Your task to perform on an android device: Set the phone to "Do not disturb". Image 0: 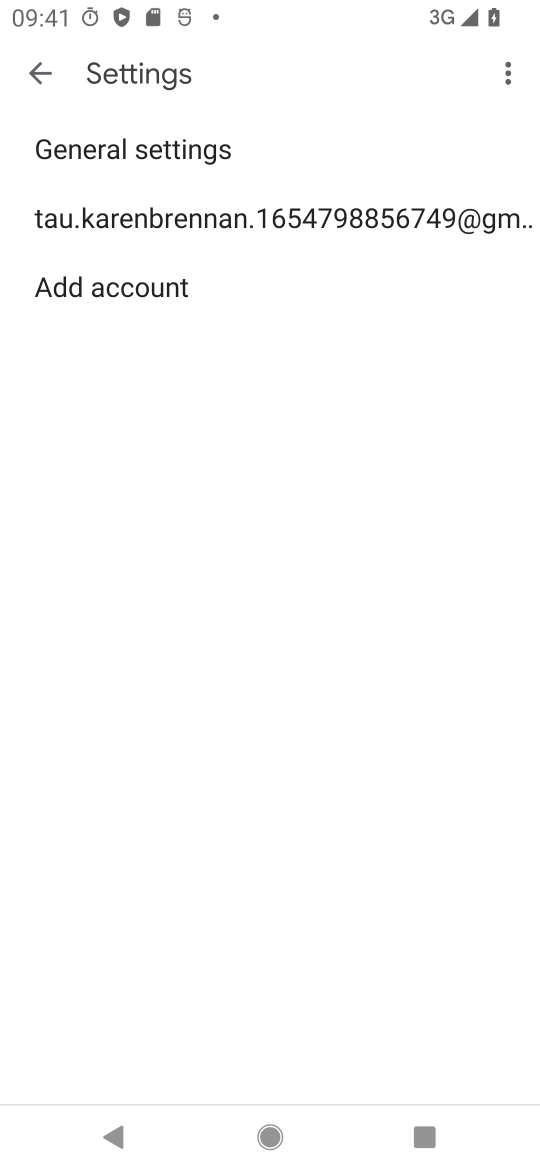
Step 0: press home button
Your task to perform on an android device: Set the phone to "Do not disturb". Image 1: 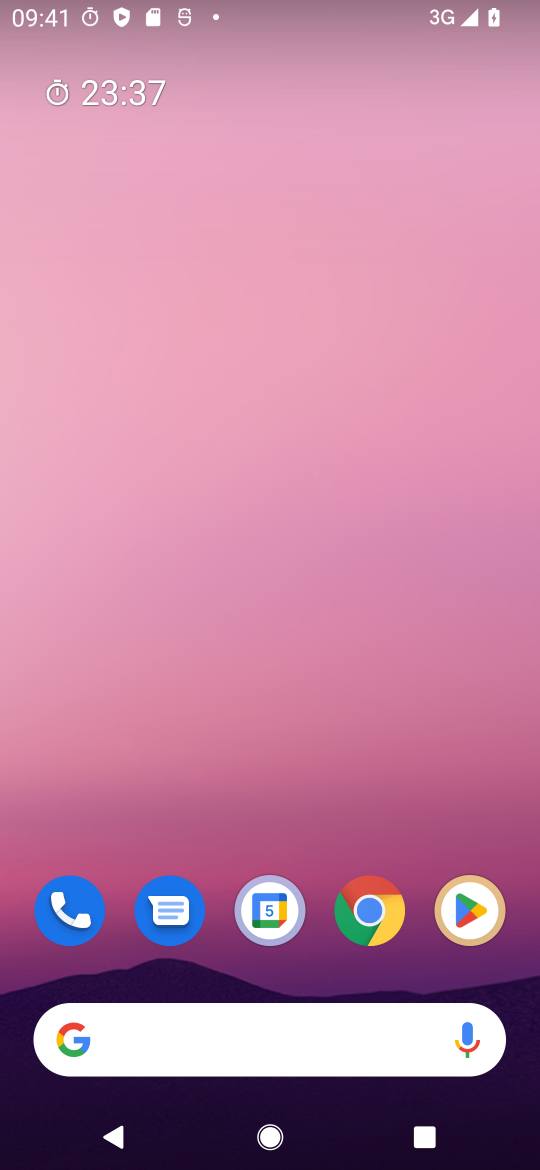
Step 1: drag from (271, 1026) to (280, 86)
Your task to perform on an android device: Set the phone to "Do not disturb". Image 2: 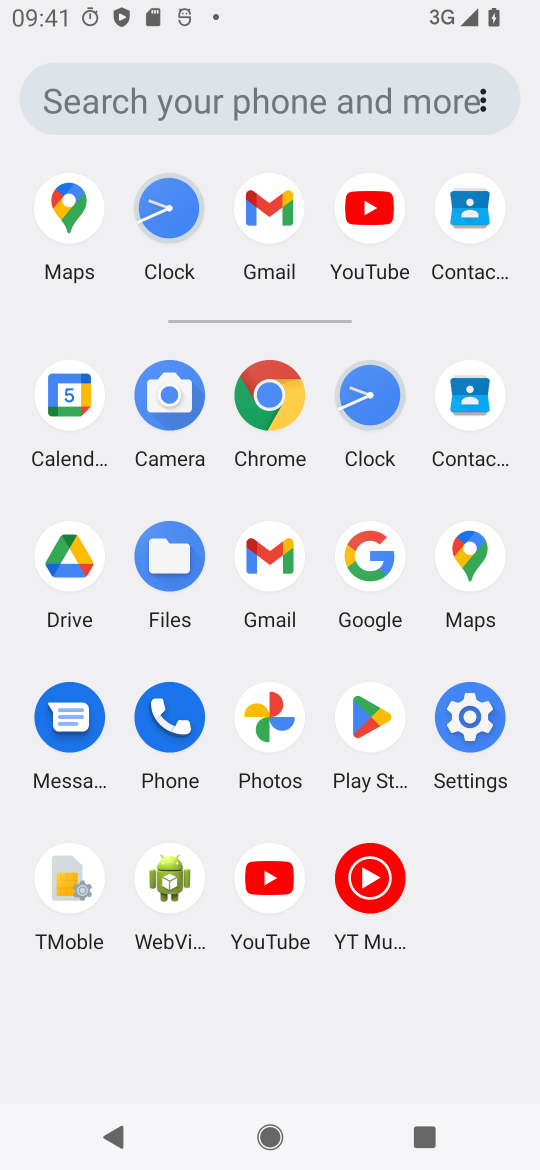
Step 2: click (473, 688)
Your task to perform on an android device: Set the phone to "Do not disturb". Image 3: 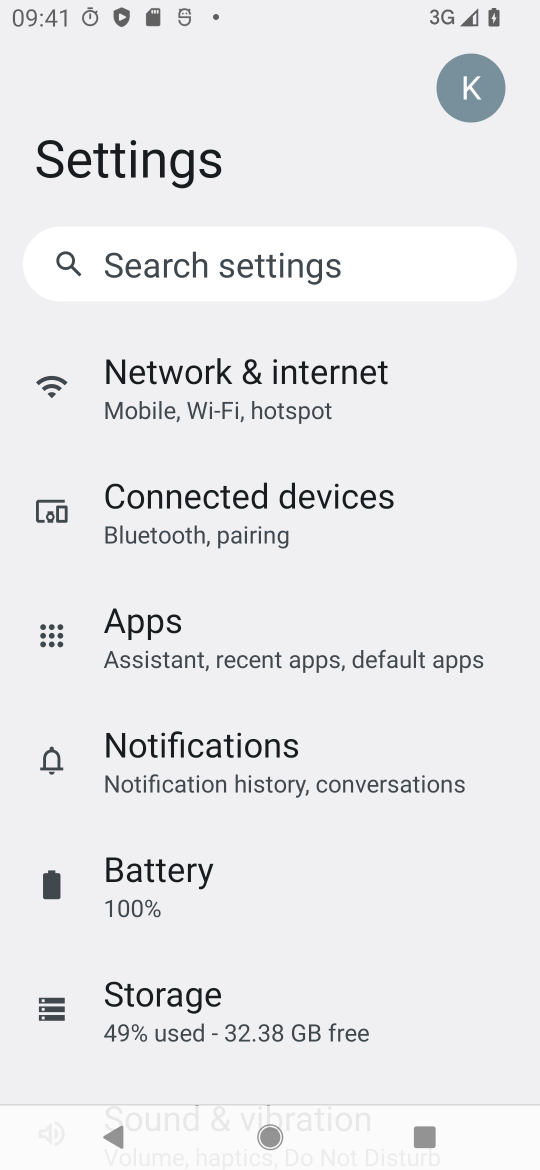
Step 3: drag from (313, 930) to (361, 377)
Your task to perform on an android device: Set the phone to "Do not disturb". Image 4: 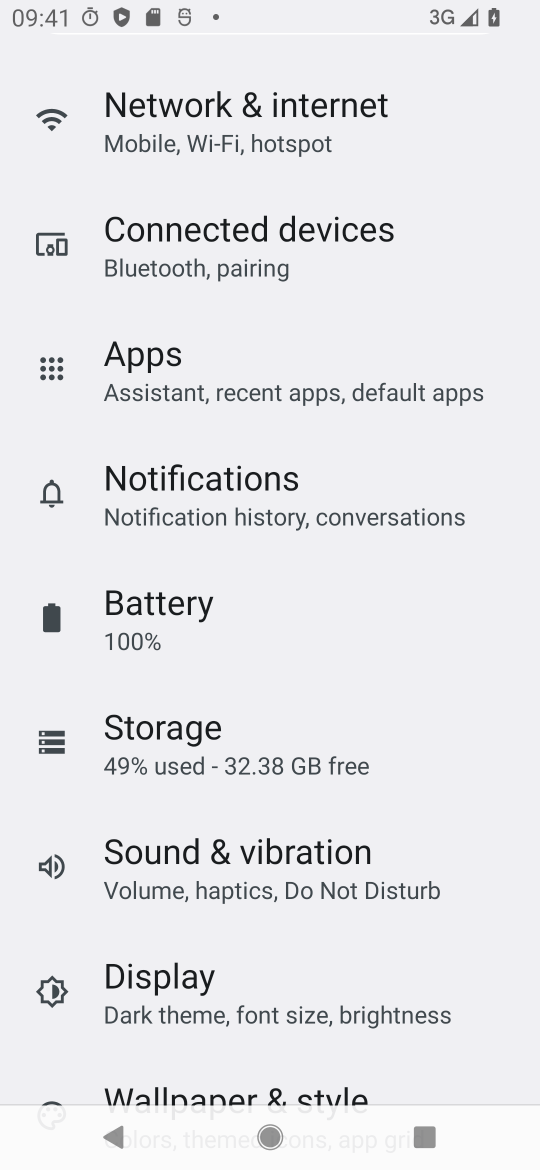
Step 4: click (343, 884)
Your task to perform on an android device: Set the phone to "Do not disturb". Image 5: 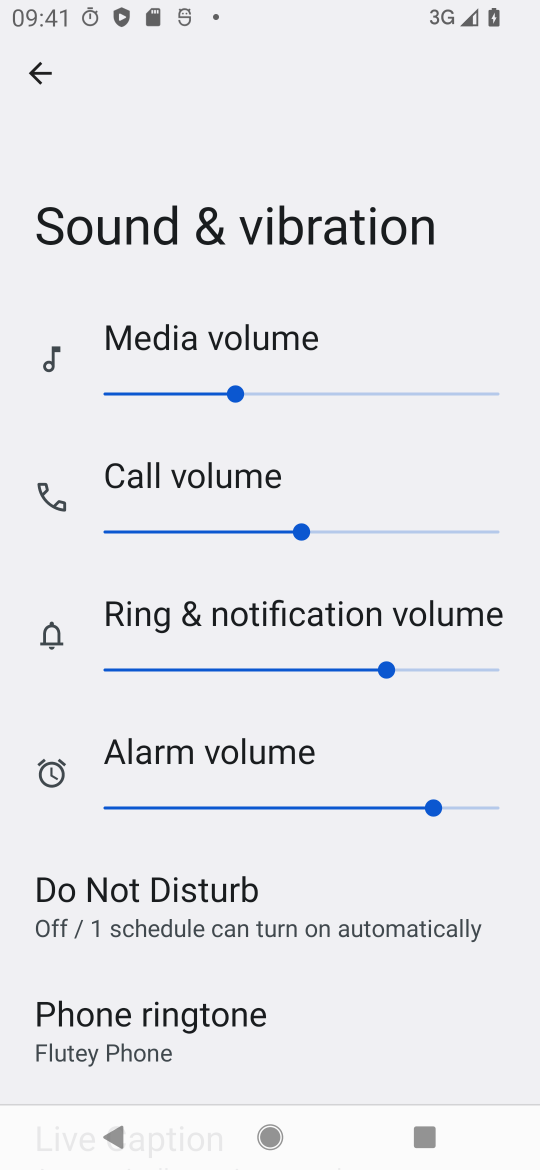
Step 5: click (282, 930)
Your task to perform on an android device: Set the phone to "Do not disturb". Image 6: 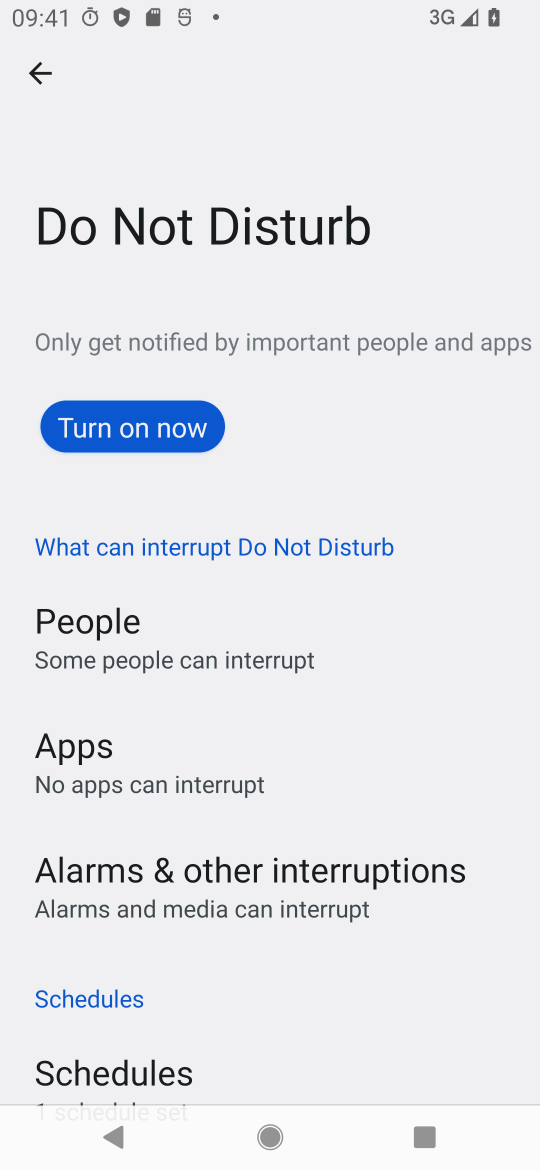
Step 6: click (151, 424)
Your task to perform on an android device: Set the phone to "Do not disturb". Image 7: 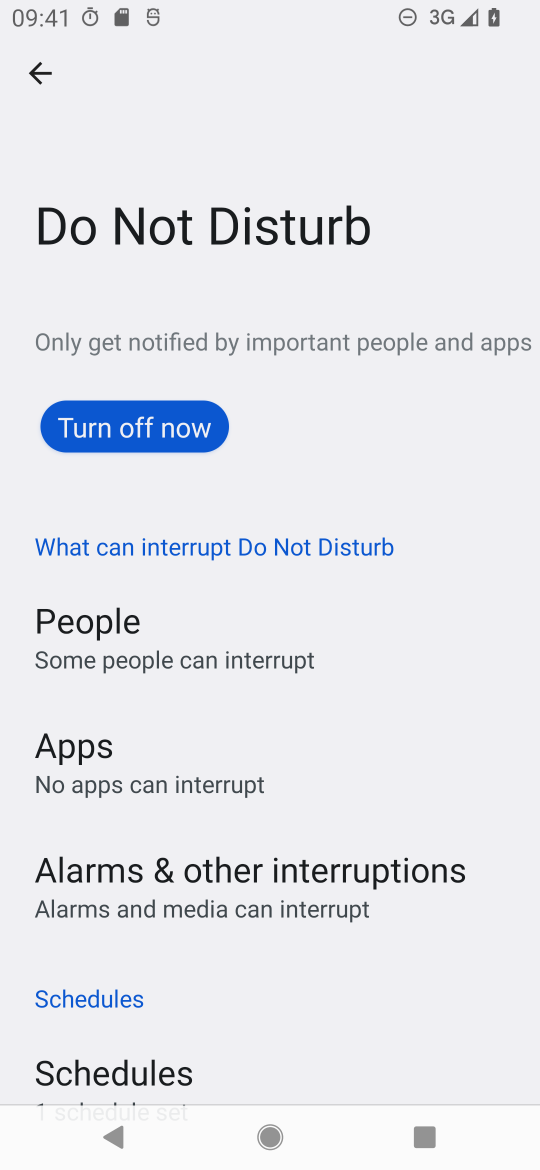
Step 7: click (100, 412)
Your task to perform on an android device: Set the phone to "Do not disturb". Image 8: 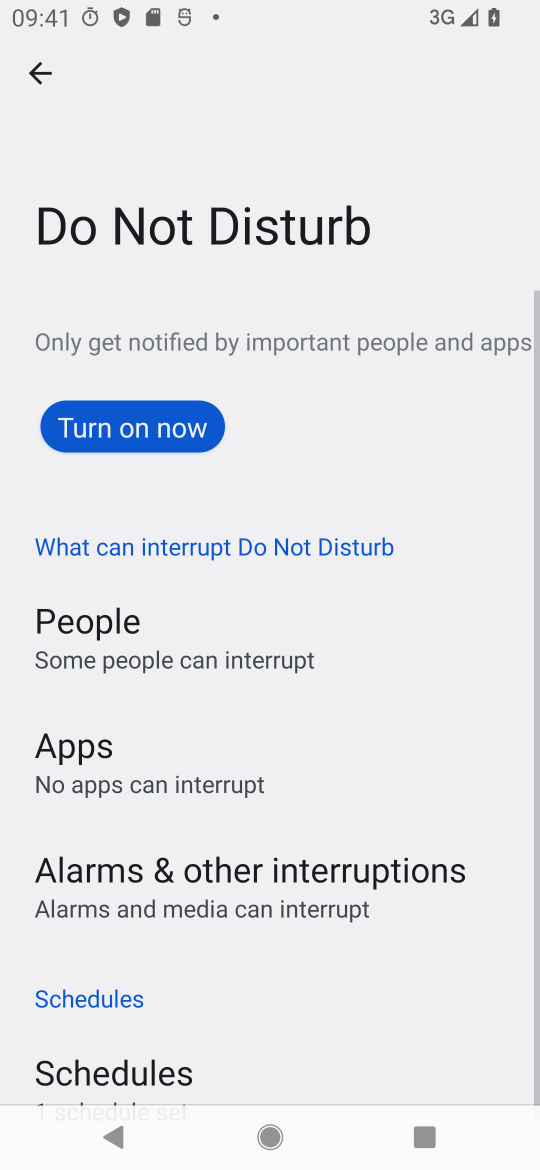
Step 8: task complete